Your task to perform on an android device: Open accessibility settings Image 0: 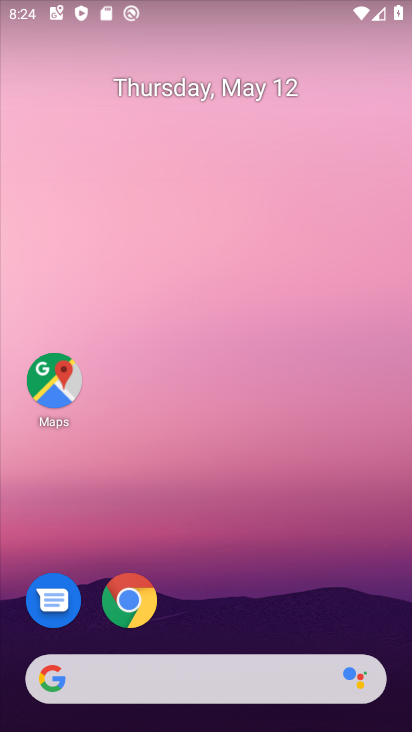
Step 0: drag from (219, 599) to (153, 2)
Your task to perform on an android device: Open accessibility settings Image 1: 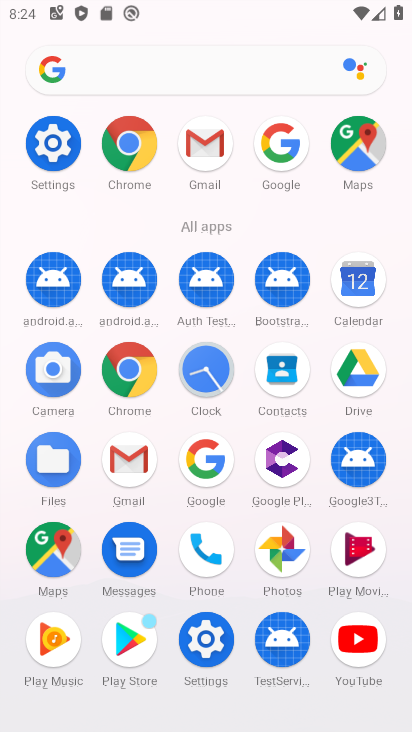
Step 1: click (58, 188)
Your task to perform on an android device: Open accessibility settings Image 2: 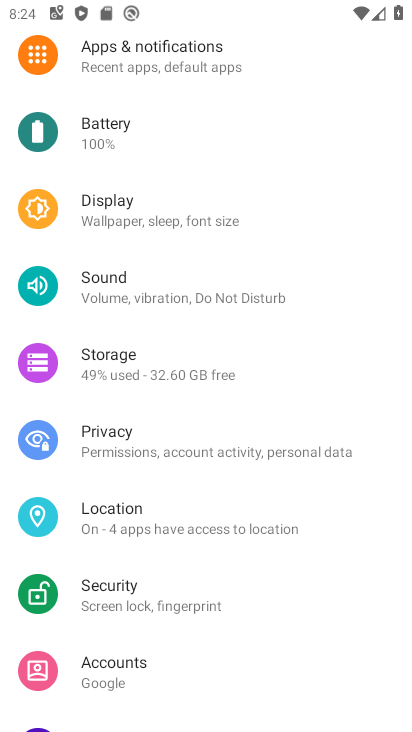
Step 2: drag from (188, 593) to (193, 273)
Your task to perform on an android device: Open accessibility settings Image 3: 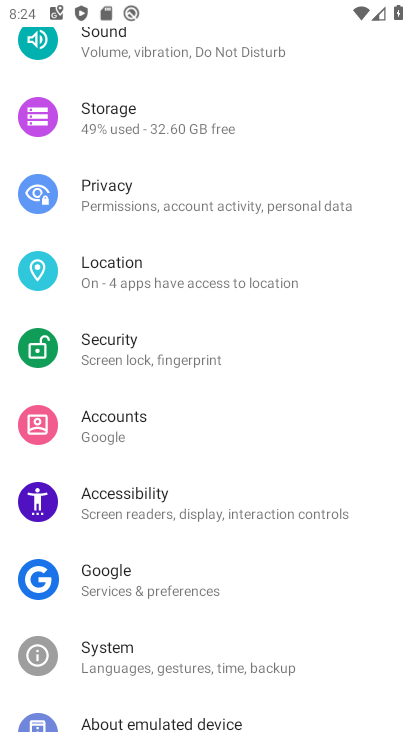
Step 3: click (111, 528)
Your task to perform on an android device: Open accessibility settings Image 4: 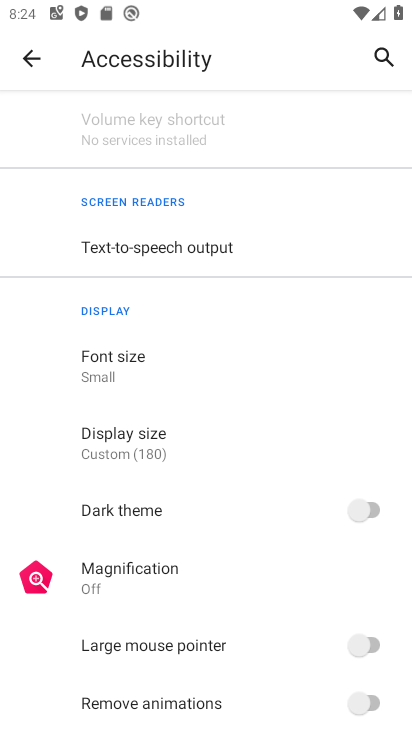
Step 4: task complete